Your task to perform on an android device: turn off notifications settings in the gmail app Image 0: 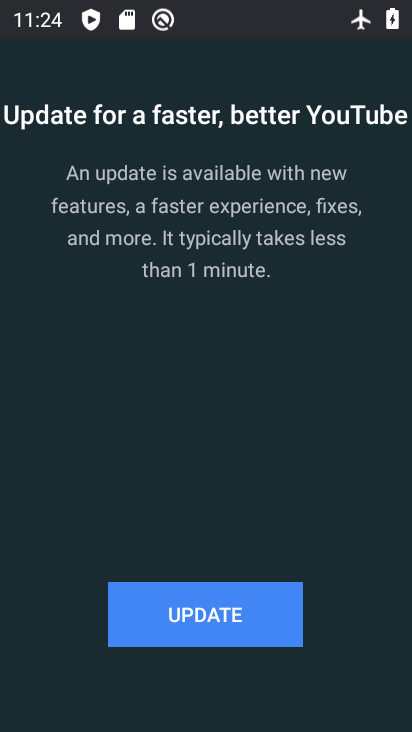
Step 0: press home button
Your task to perform on an android device: turn off notifications settings in the gmail app Image 1: 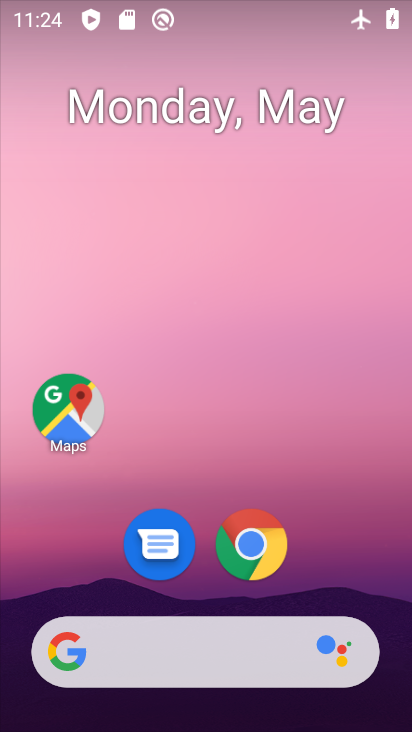
Step 1: drag from (338, 569) to (336, 108)
Your task to perform on an android device: turn off notifications settings in the gmail app Image 2: 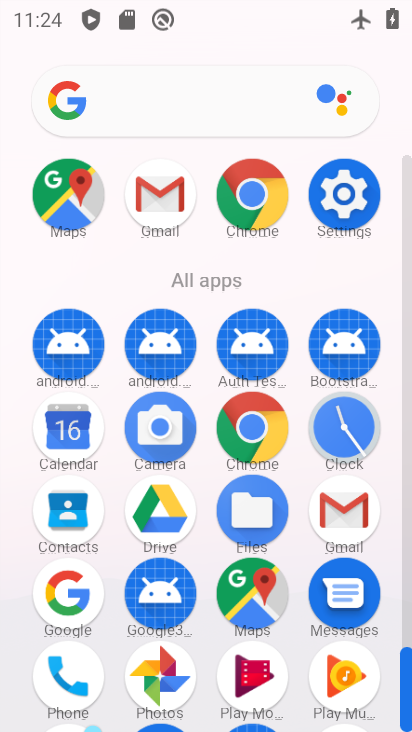
Step 2: click (170, 214)
Your task to perform on an android device: turn off notifications settings in the gmail app Image 3: 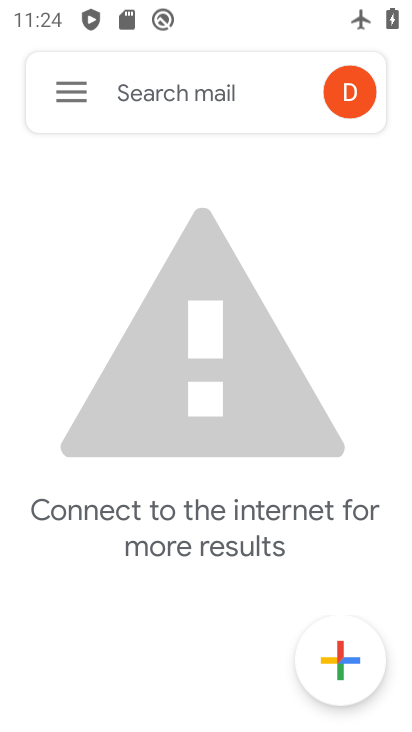
Step 3: click (55, 104)
Your task to perform on an android device: turn off notifications settings in the gmail app Image 4: 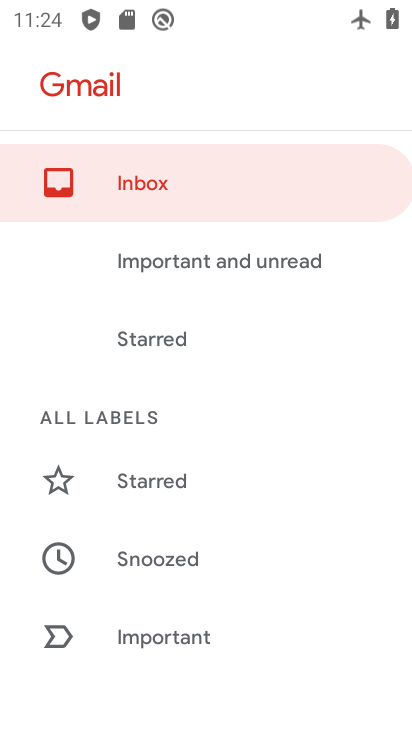
Step 4: drag from (186, 635) to (193, 223)
Your task to perform on an android device: turn off notifications settings in the gmail app Image 5: 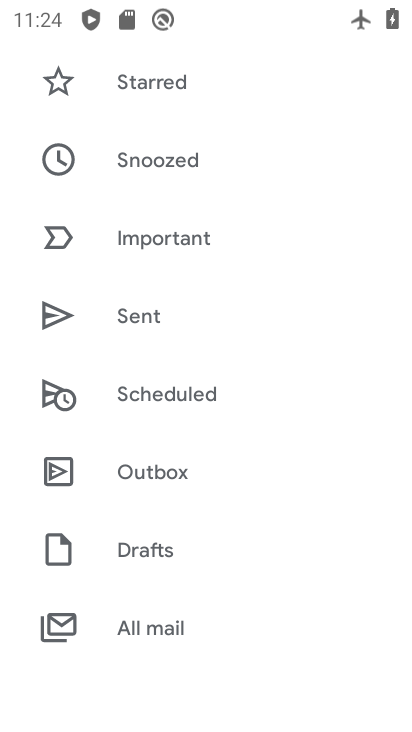
Step 5: drag from (224, 634) to (228, 239)
Your task to perform on an android device: turn off notifications settings in the gmail app Image 6: 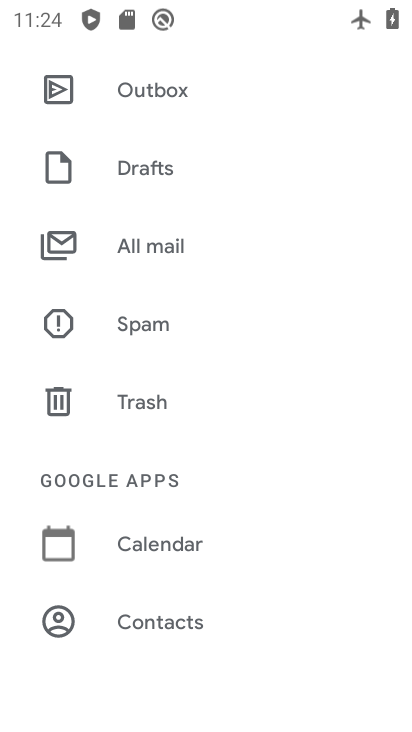
Step 6: drag from (217, 631) to (219, 342)
Your task to perform on an android device: turn off notifications settings in the gmail app Image 7: 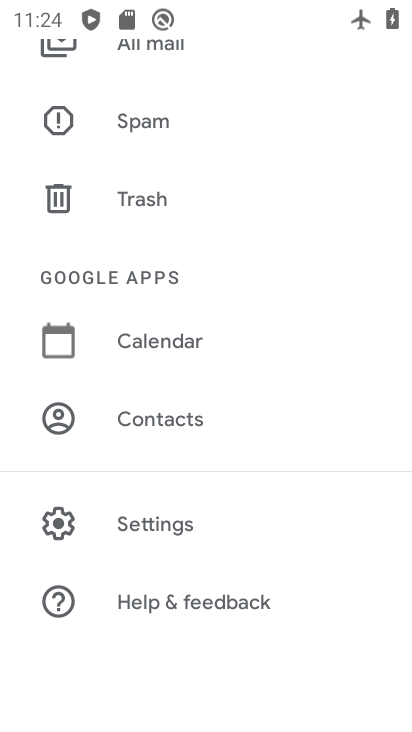
Step 7: click (168, 525)
Your task to perform on an android device: turn off notifications settings in the gmail app Image 8: 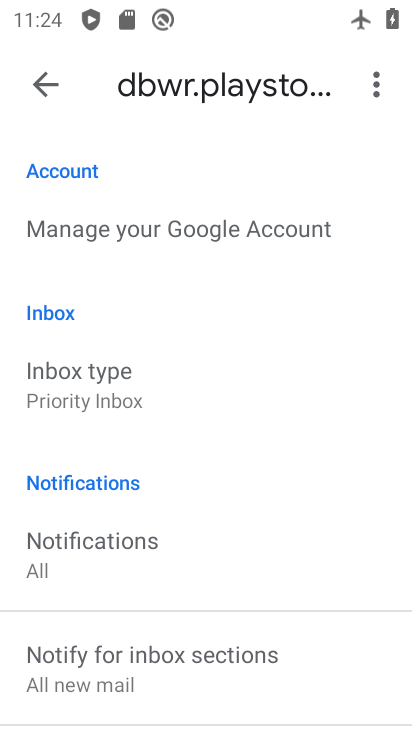
Step 8: drag from (248, 621) to (252, 365)
Your task to perform on an android device: turn off notifications settings in the gmail app Image 9: 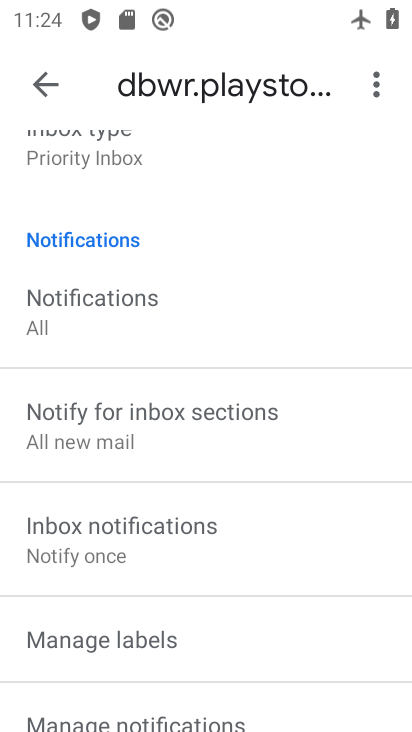
Step 9: drag from (243, 574) to (255, 346)
Your task to perform on an android device: turn off notifications settings in the gmail app Image 10: 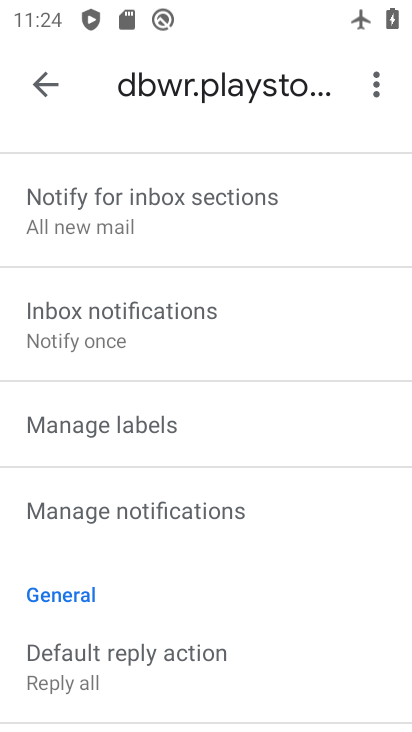
Step 10: drag from (238, 610) to (293, 272)
Your task to perform on an android device: turn off notifications settings in the gmail app Image 11: 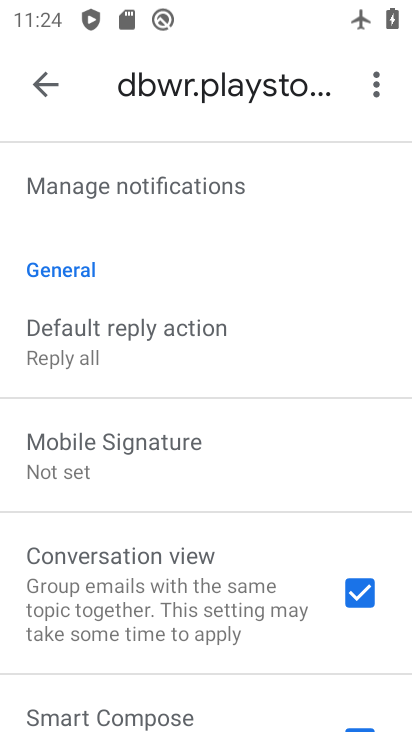
Step 11: drag from (223, 633) to (266, 339)
Your task to perform on an android device: turn off notifications settings in the gmail app Image 12: 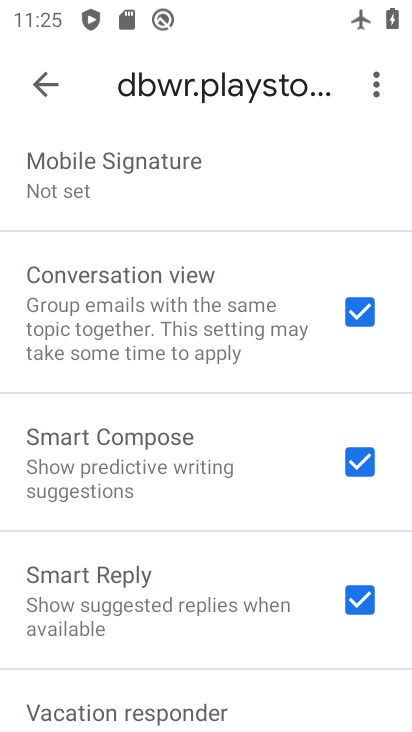
Step 12: drag from (267, 692) to (233, 387)
Your task to perform on an android device: turn off notifications settings in the gmail app Image 13: 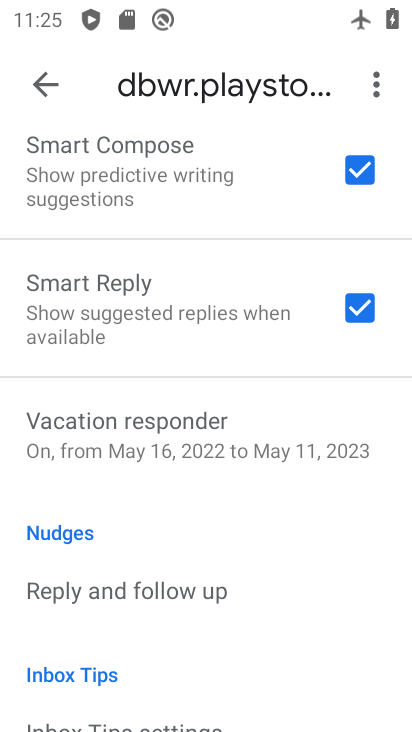
Step 13: drag from (114, 159) to (210, 624)
Your task to perform on an android device: turn off notifications settings in the gmail app Image 14: 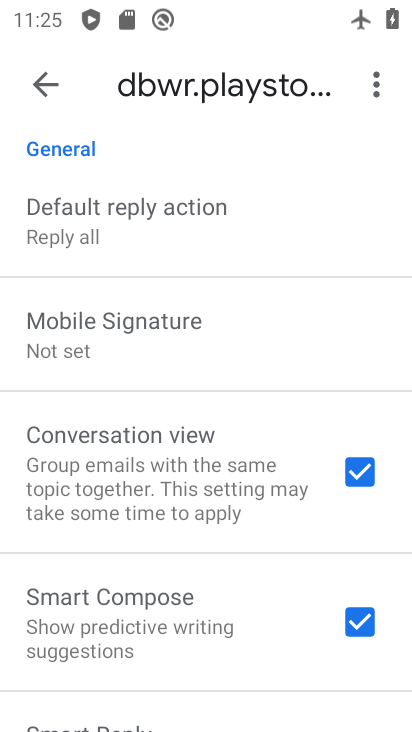
Step 14: drag from (110, 251) to (210, 671)
Your task to perform on an android device: turn off notifications settings in the gmail app Image 15: 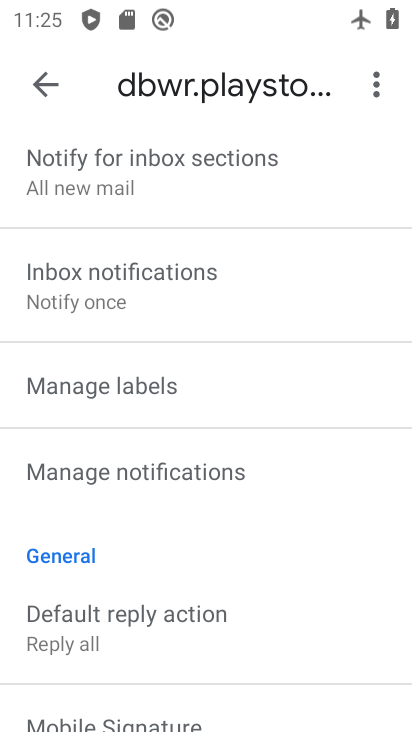
Step 15: drag from (232, 259) to (339, 625)
Your task to perform on an android device: turn off notifications settings in the gmail app Image 16: 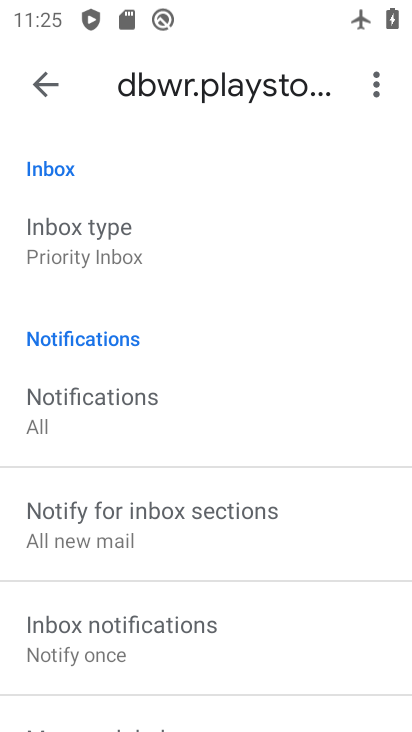
Step 16: drag from (268, 269) to (327, 621)
Your task to perform on an android device: turn off notifications settings in the gmail app Image 17: 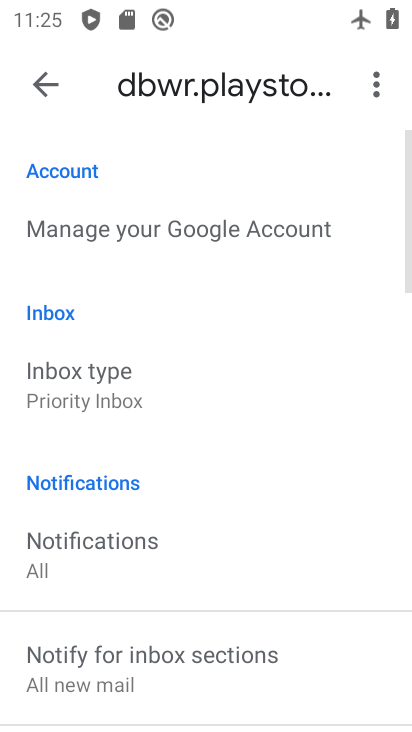
Step 17: click (148, 543)
Your task to perform on an android device: turn off notifications settings in the gmail app Image 18: 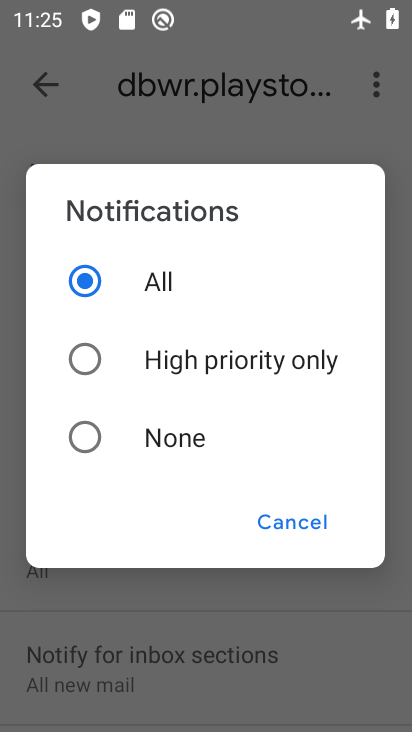
Step 18: click (82, 432)
Your task to perform on an android device: turn off notifications settings in the gmail app Image 19: 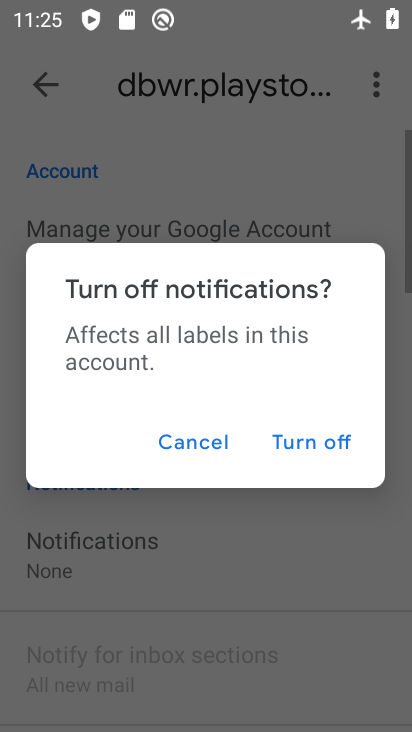
Step 19: task complete